Your task to perform on an android device: change the upload size in google photos Image 0: 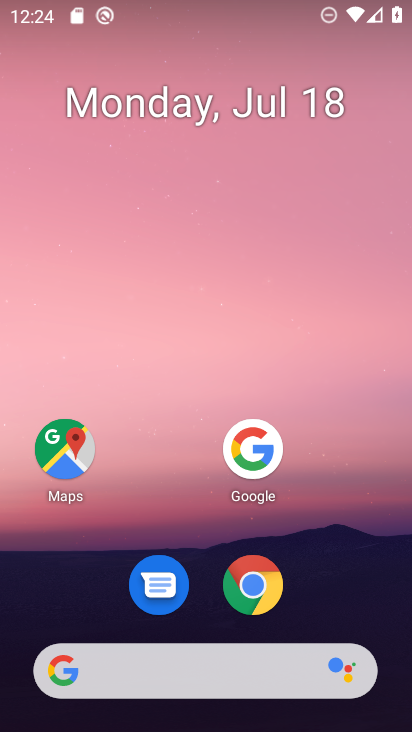
Step 0: drag from (258, 428) to (353, 113)
Your task to perform on an android device: change the upload size in google photos Image 1: 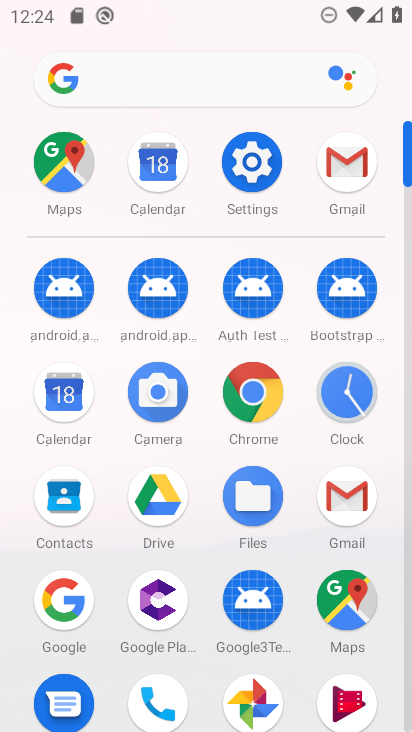
Step 1: click (246, 703)
Your task to perform on an android device: change the upload size in google photos Image 2: 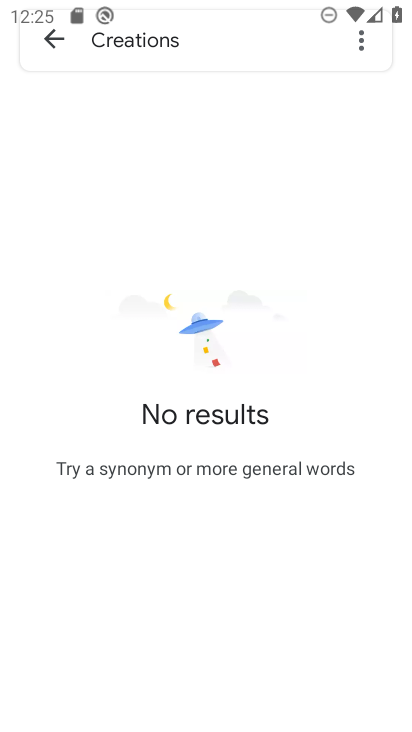
Step 2: click (64, 41)
Your task to perform on an android device: change the upload size in google photos Image 3: 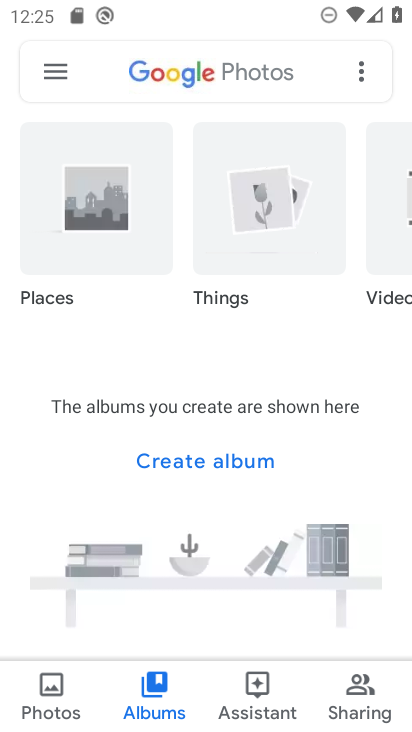
Step 3: click (44, 72)
Your task to perform on an android device: change the upload size in google photos Image 4: 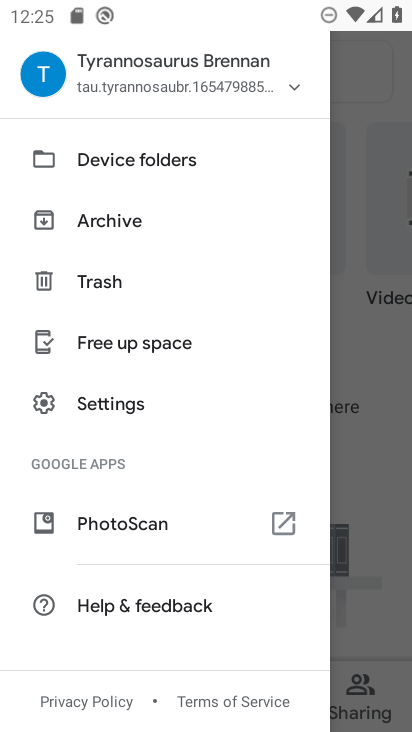
Step 4: click (92, 400)
Your task to perform on an android device: change the upload size in google photos Image 5: 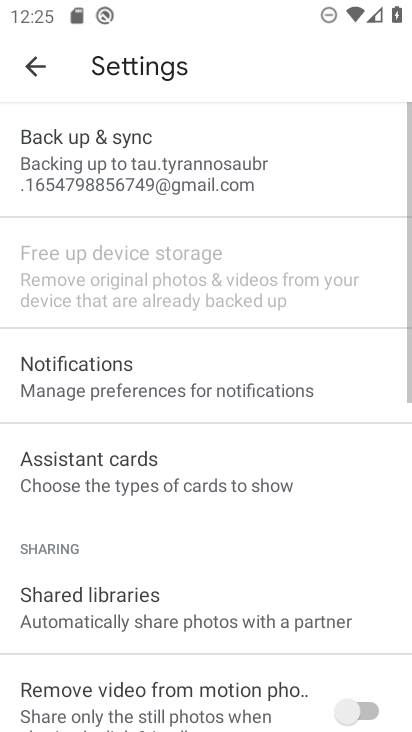
Step 5: click (191, 184)
Your task to perform on an android device: change the upload size in google photos Image 6: 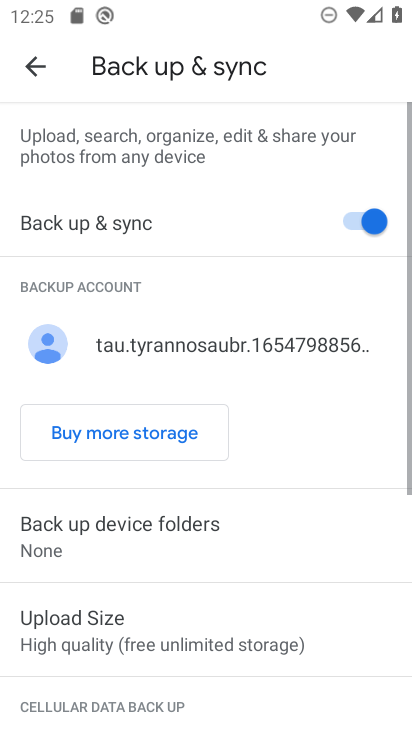
Step 6: drag from (223, 583) to (356, 192)
Your task to perform on an android device: change the upload size in google photos Image 7: 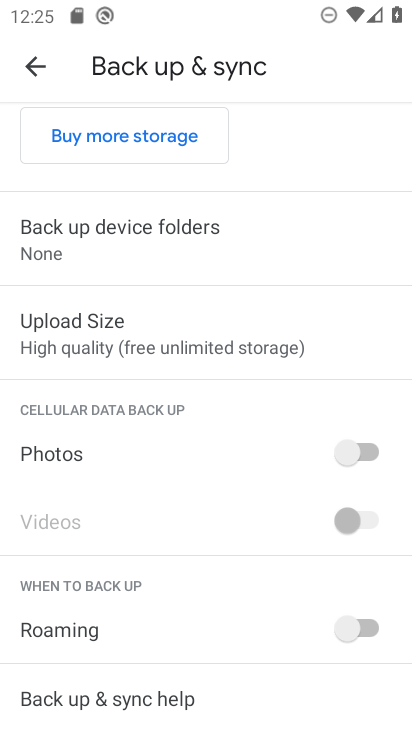
Step 7: click (108, 326)
Your task to perform on an android device: change the upload size in google photos Image 8: 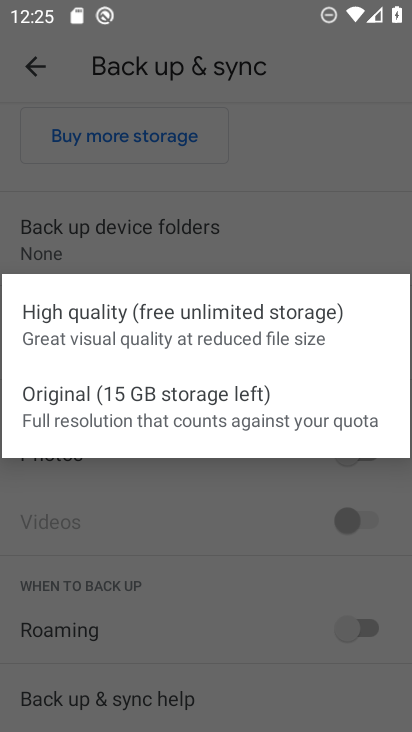
Step 8: click (111, 404)
Your task to perform on an android device: change the upload size in google photos Image 9: 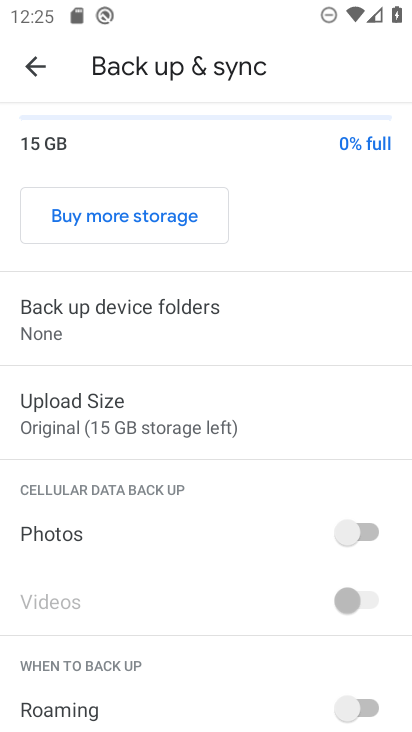
Step 9: task complete